Your task to perform on an android device: open app "PUBG MOBILE" (install if not already installed) and enter user name: "phenomenologically@gmail.com" and password: "artillery" Image 0: 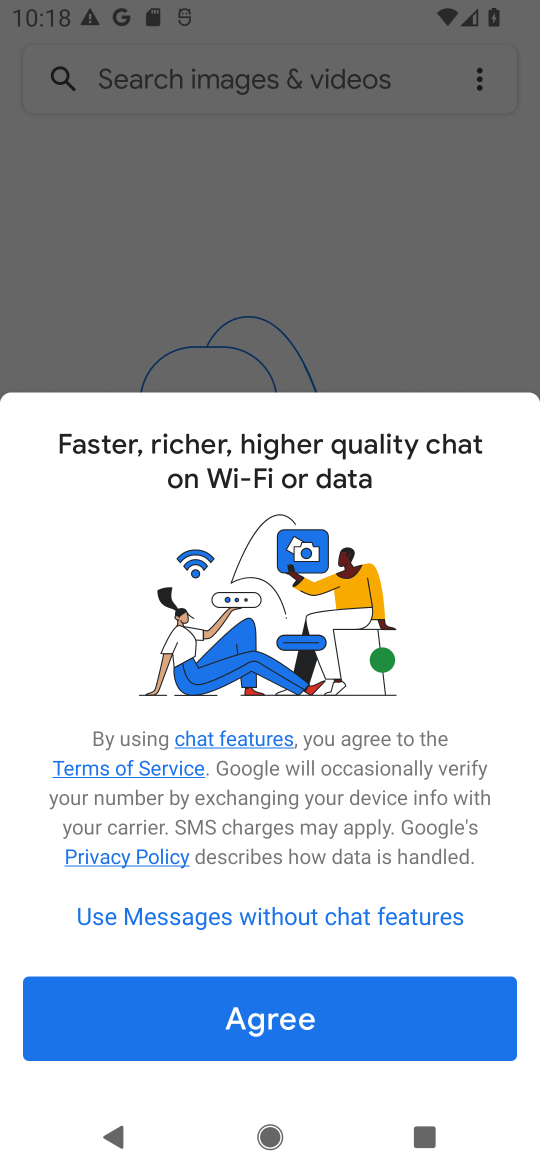
Step 0: press home button
Your task to perform on an android device: open app "PUBG MOBILE" (install if not already installed) and enter user name: "phenomenologically@gmail.com" and password: "artillery" Image 1: 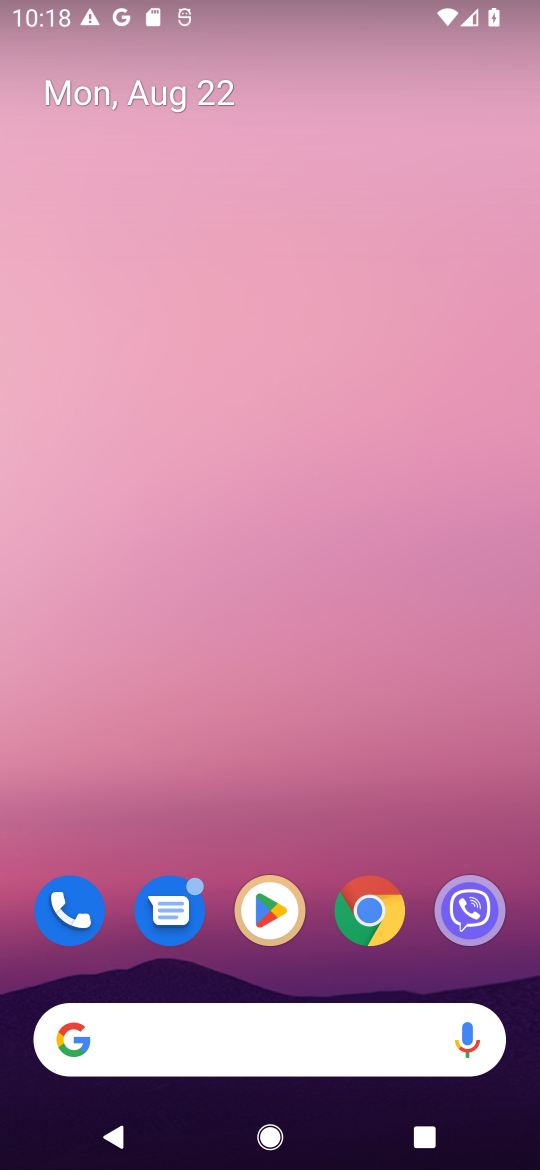
Step 1: click (279, 896)
Your task to perform on an android device: open app "PUBG MOBILE" (install if not already installed) and enter user name: "phenomenologically@gmail.com" and password: "artillery" Image 2: 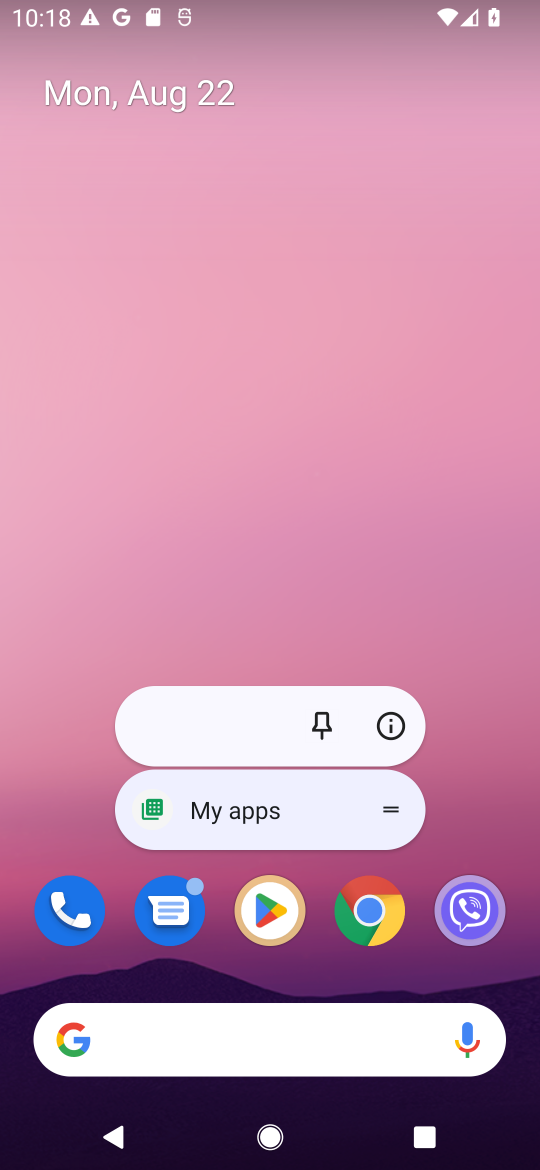
Step 2: click (289, 931)
Your task to perform on an android device: open app "PUBG MOBILE" (install if not already installed) and enter user name: "phenomenologically@gmail.com" and password: "artillery" Image 3: 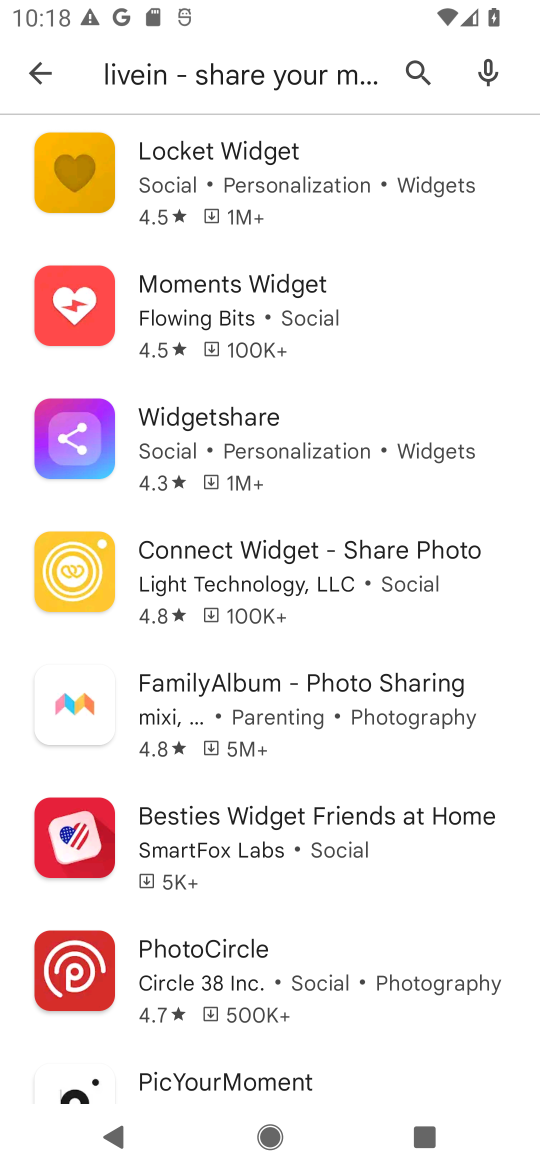
Step 3: click (410, 69)
Your task to perform on an android device: open app "PUBG MOBILE" (install if not already installed) and enter user name: "phenomenologically@gmail.com" and password: "artillery" Image 4: 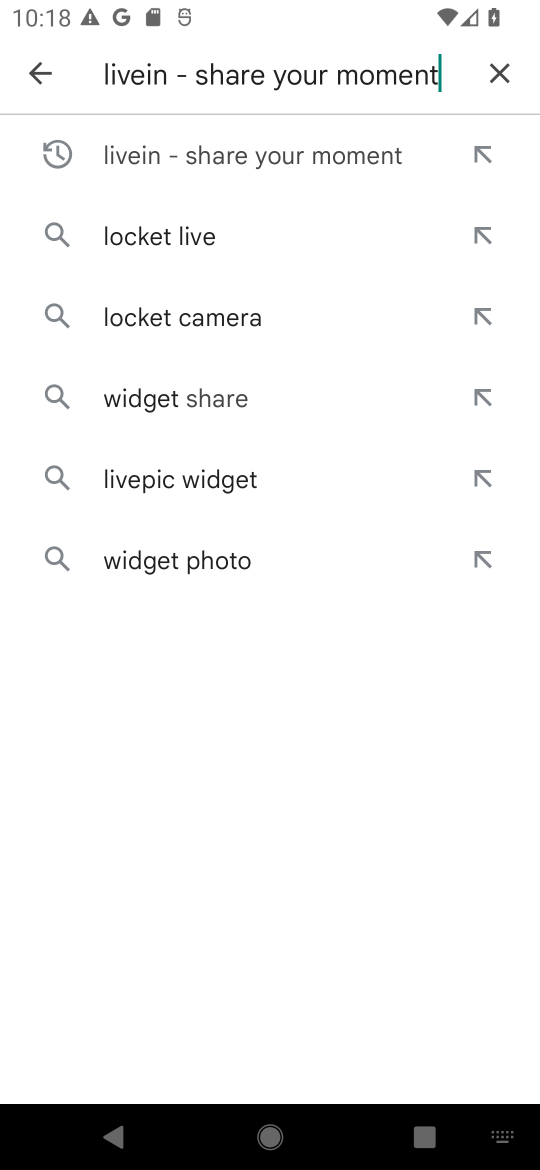
Step 4: click (489, 68)
Your task to perform on an android device: open app "PUBG MOBILE" (install if not already installed) and enter user name: "phenomenologically@gmail.com" and password: "artillery" Image 5: 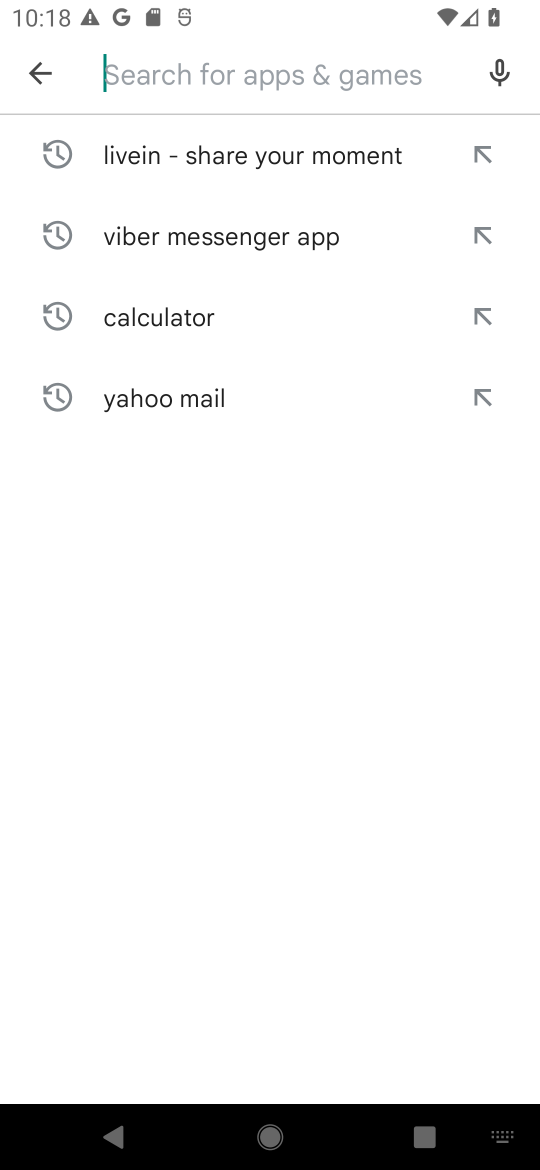
Step 5: type "PUBG MOBILE"
Your task to perform on an android device: open app "PUBG MOBILE" (install if not already installed) and enter user name: "phenomenologically@gmail.com" and password: "artillery" Image 6: 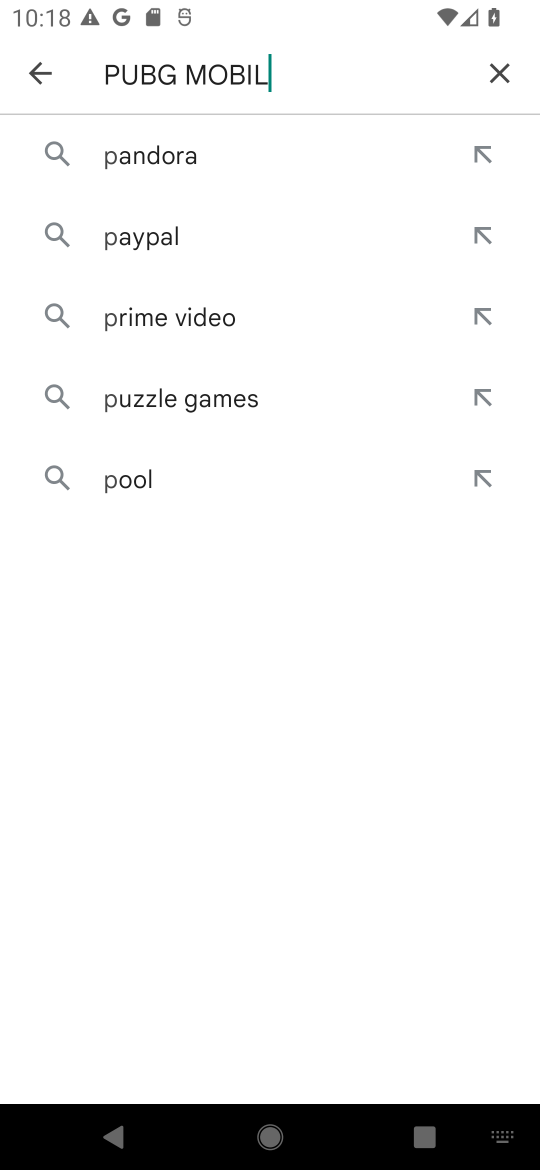
Step 6: type ""
Your task to perform on an android device: open app "PUBG MOBILE" (install if not already installed) and enter user name: "phenomenologically@gmail.com" and password: "artillery" Image 7: 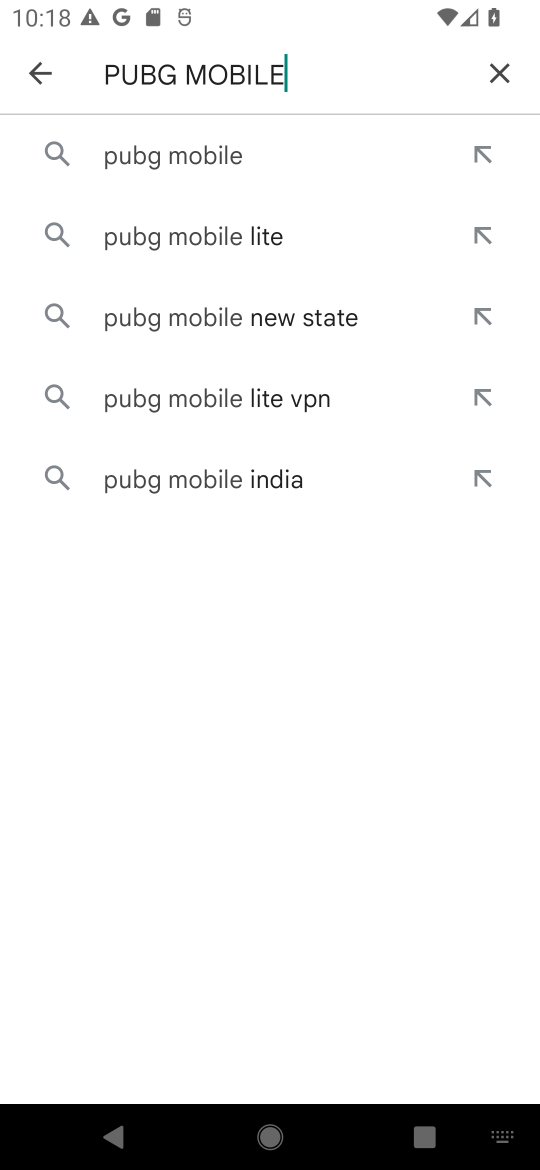
Step 7: click (256, 151)
Your task to perform on an android device: open app "PUBG MOBILE" (install if not already installed) and enter user name: "phenomenologically@gmail.com" and password: "artillery" Image 8: 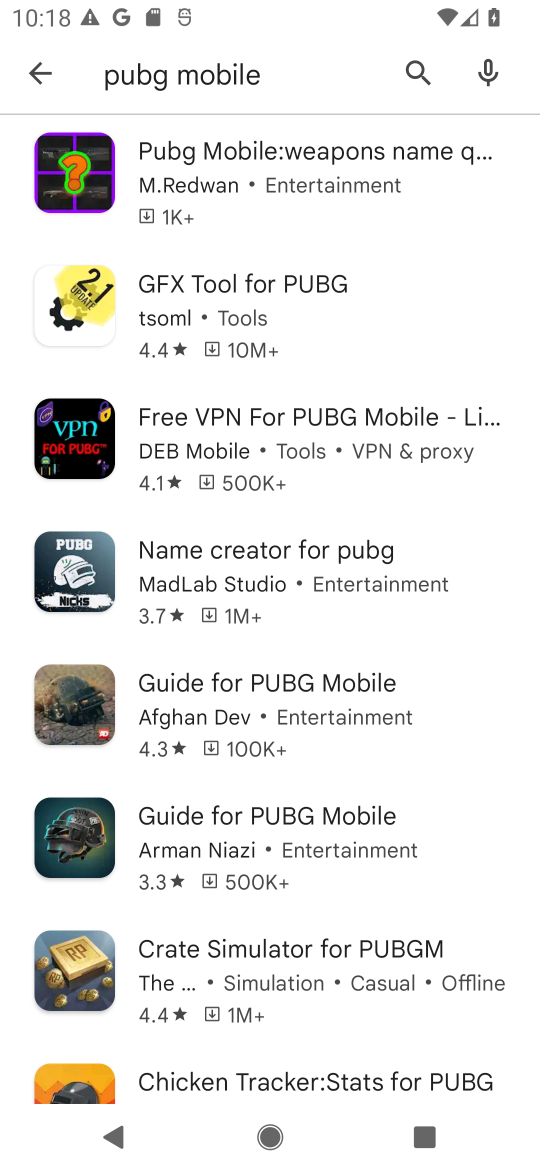
Step 8: task complete